Your task to perform on an android device: Go to calendar. Show me events next week Image 0: 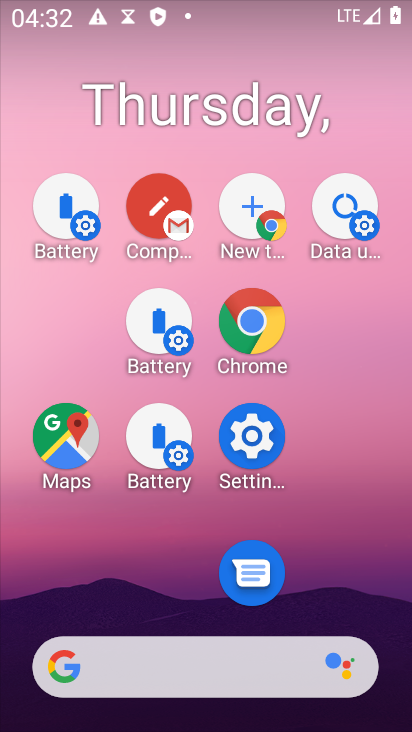
Step 0: drag from (268, 382) to (268, 142)
Your task to perform on an android device: Go to calendar. Show me events next week Image 1: 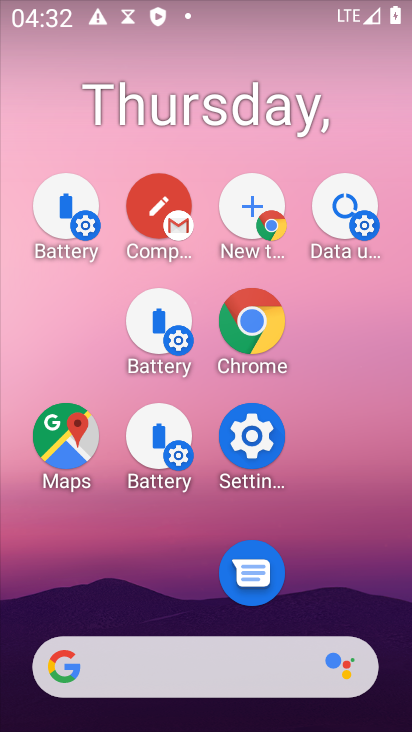
Step 1: drag from (278, 656) to (264, 314)
Your task to perform on an android device: Go to calendar. Show me events next week Image 2: 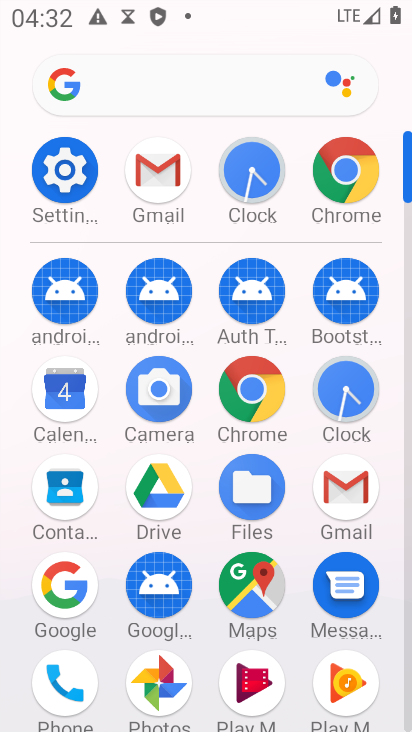
Step 2: click (63, 404)
Your task to perform on an android device: Go to calendar. Show me events next week Image 3: 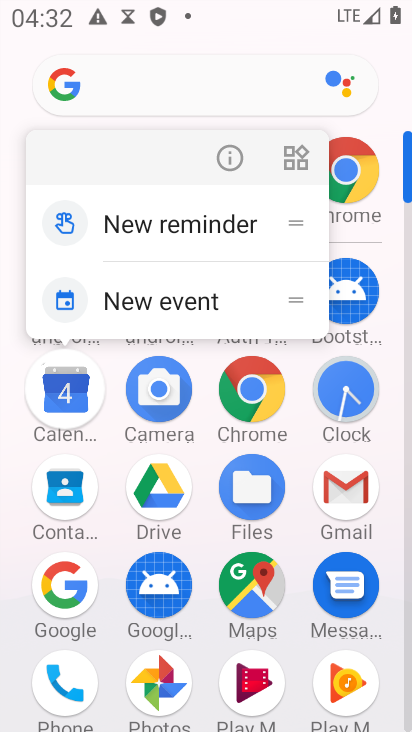
Step 3: click (69, 408)
Your task to perform on an android device: Go to calendar. Show me events next week Image 4: 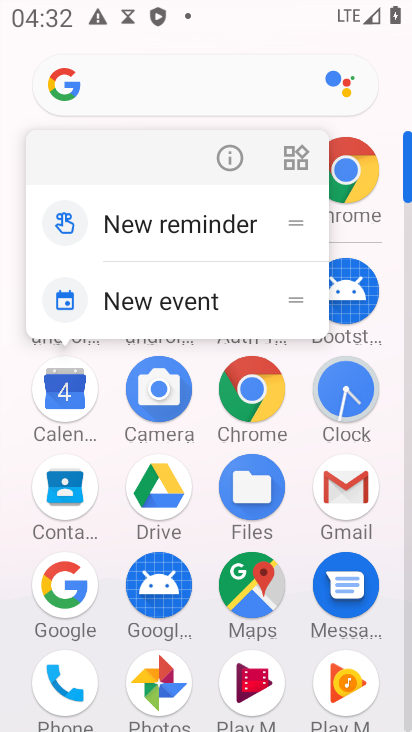
Step 4: click (61, 407)
Your task to perform on an android device: Go to calendar. Show me events next week Image 5: 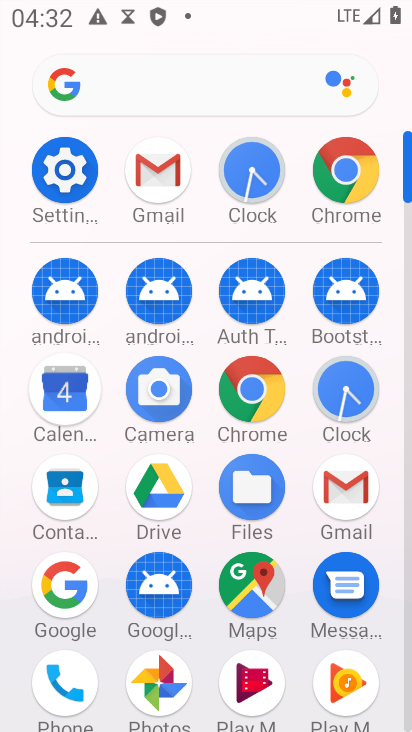
Step 5: click (69, 390)
Your task to perform on an android device: Go to calendar. Show me events next week Image 6: 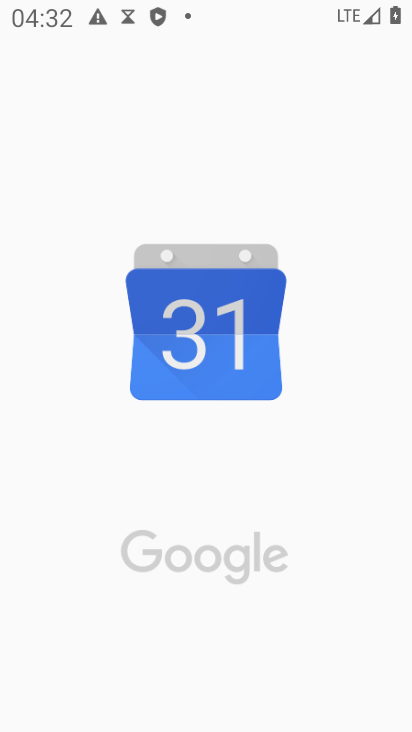
Step 6: click (68, 384)
Your task to perform on an android device: Go to calendar. Show me events next week Image 7: 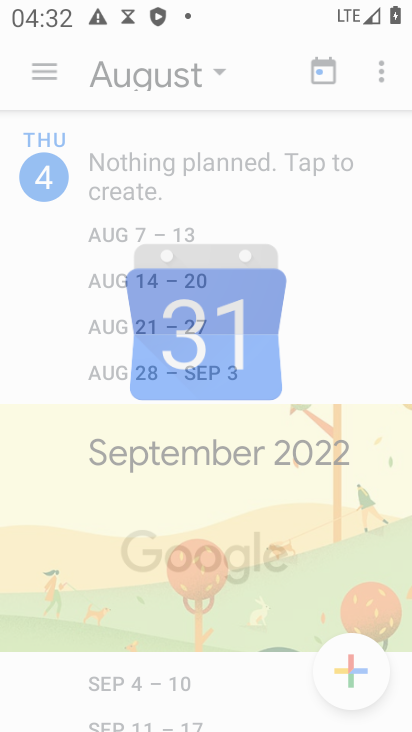
Step 7: click (68, 384)
Your task to perform on an android device: Go to calendar. Show me events next week Image 8: 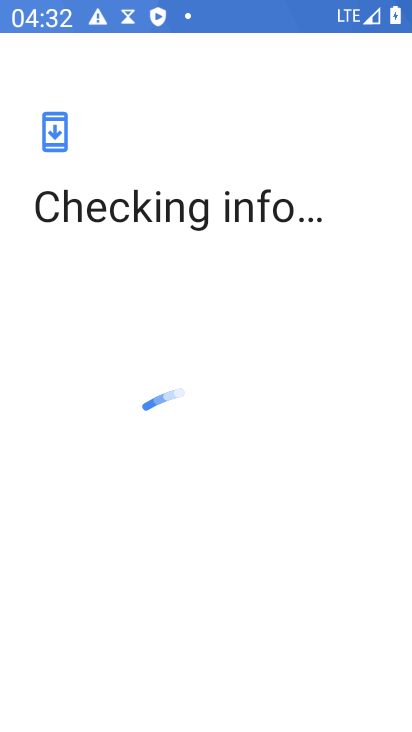
Step 8: press back button
Your task to perform on an android device: Go to calendar. Show me events next week Image 9: 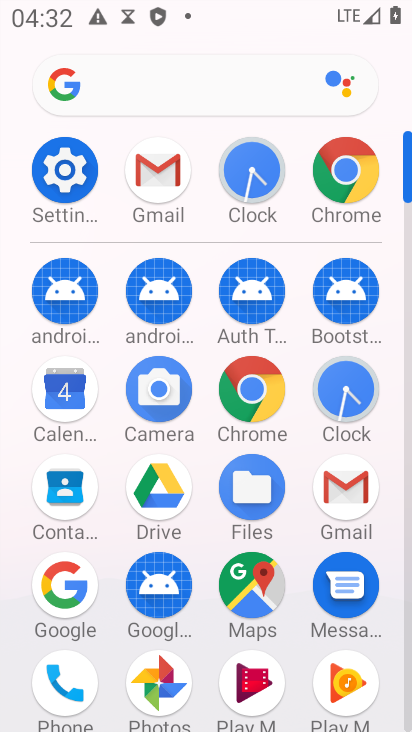
Step 9: click (46, 400)
Your task to perform on an android device: Go to calendar. Show me events next week Image 10: 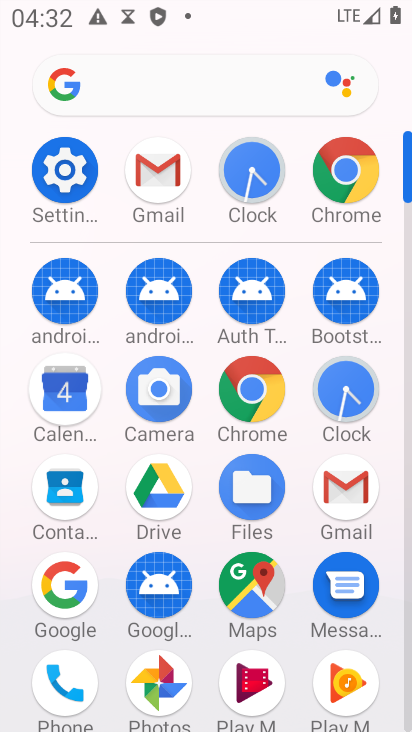
Step 10: click (46, 400)
Your task to perform on an android device: Go to calendar. Show me events next week Image 11: 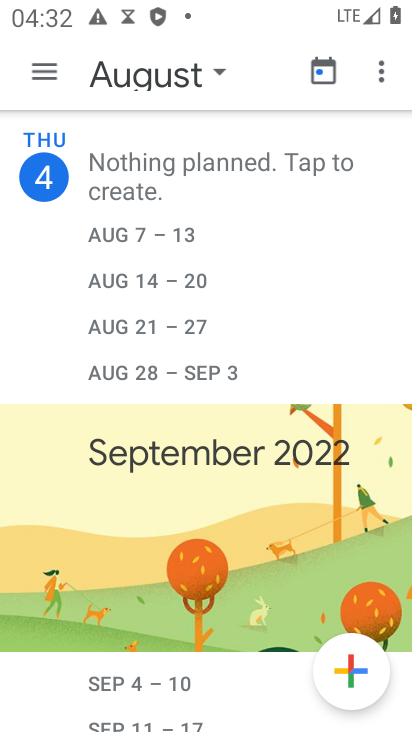
Step 11: click (66, 379)
Your task to perform on an android device: Go to calendar. Show me events next week Image 12: 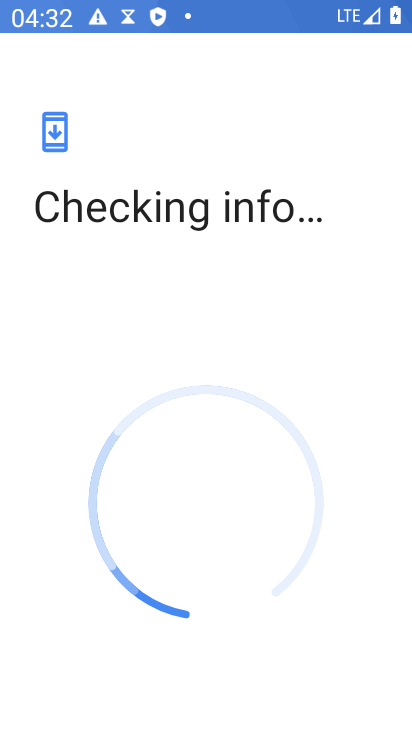
Step 12: press back button
Your task to perform on an android device: Go to calendar. Show me events next week Image 13: 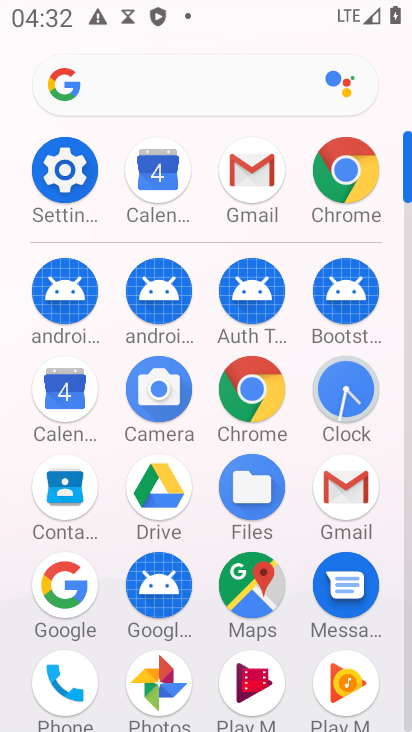
Step 13: click (52, 393)
Your task to perform on an android device: Go to calendar. Show me events next week Image 14: 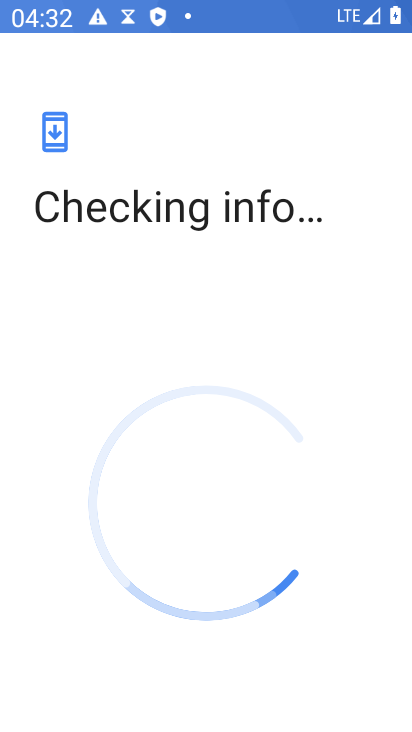
Step 14: click (207, 69)
Your task to perform on an android device: Go to calendar. Show me events next week Image 15: 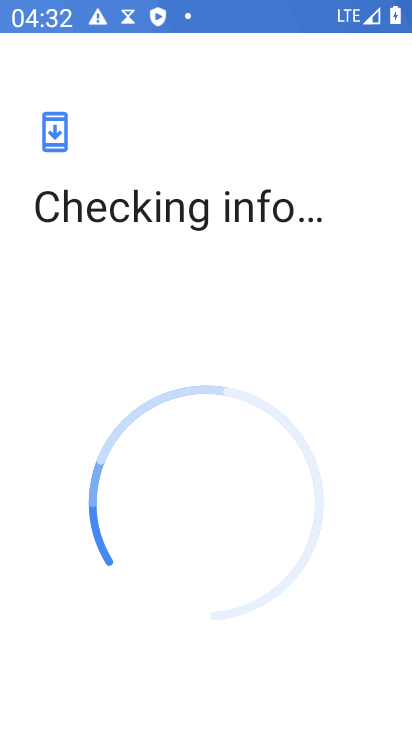
Step 15: task complete